Your task to perform on an android device: Check out the best rated 4k TV on Best Buy. Image 0: 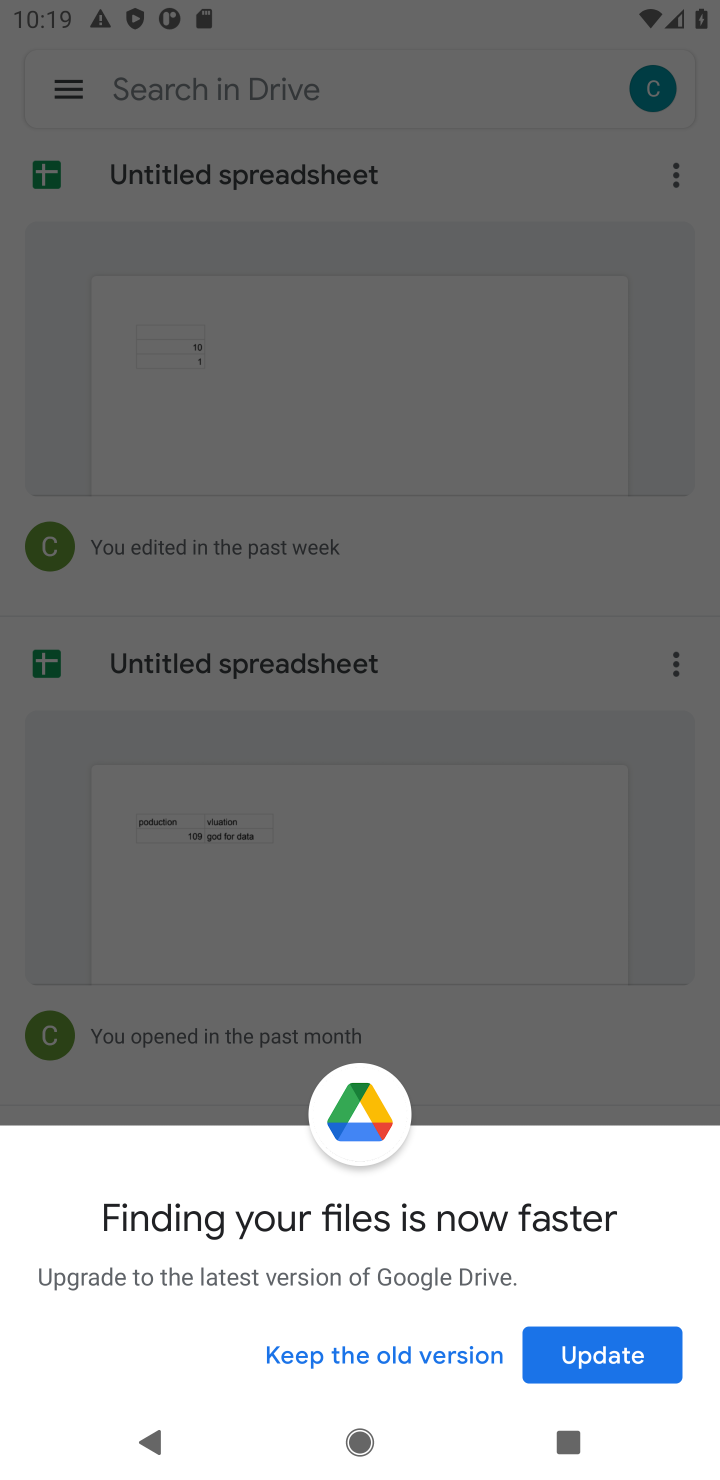
Step 0: press home button
Your task to perform on an android device: Check out the best rated 4k TV on Best Buy. Image 1: 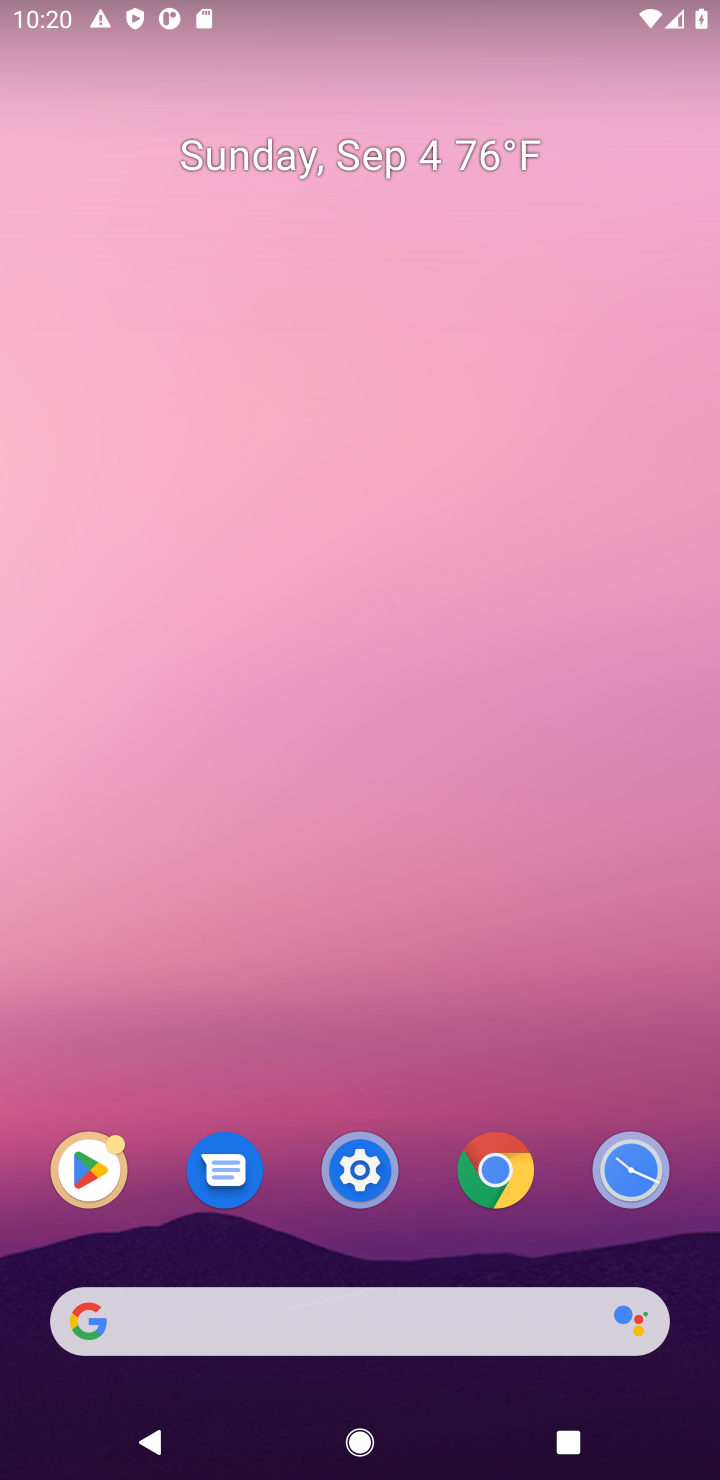
Step 1: click (379, 1306)
Your task to perform on an android device: Check out the best rated 4k TV on Best Buy. Image 2: 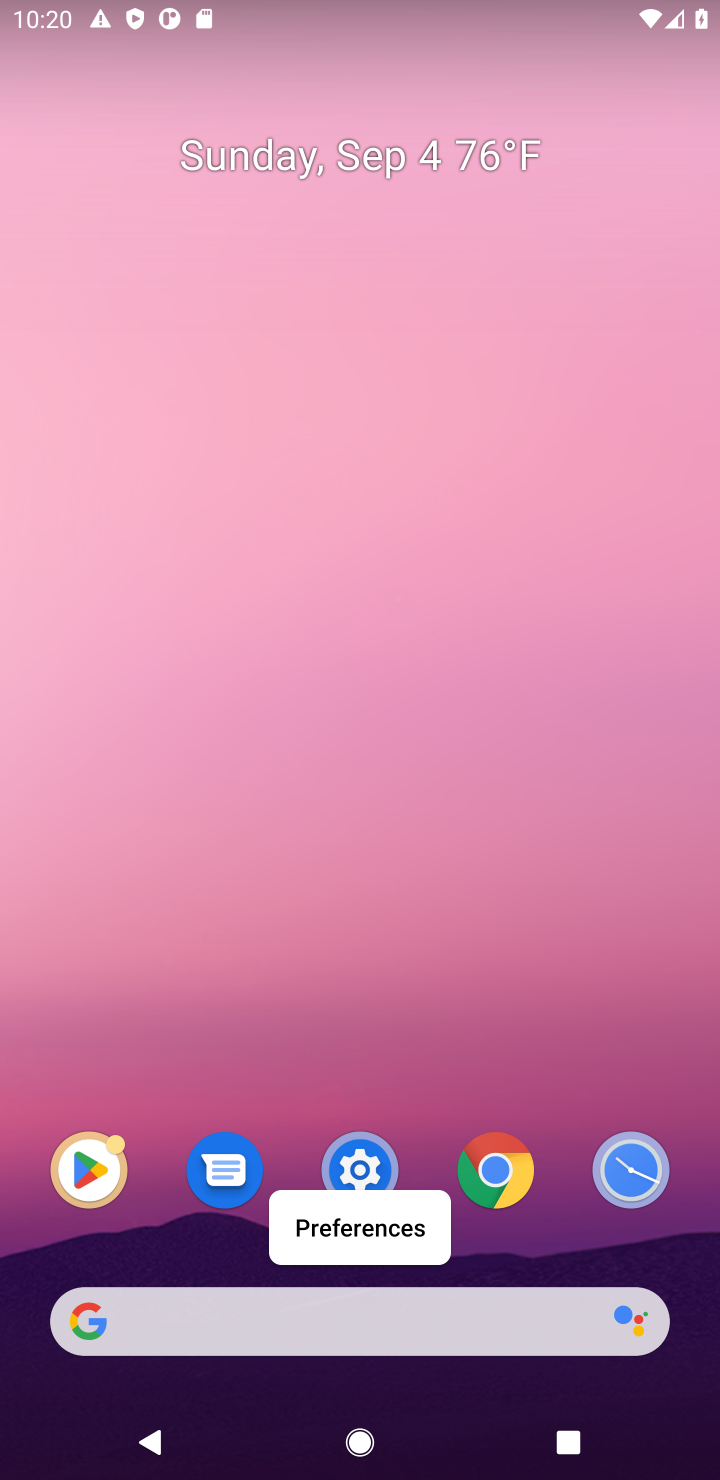
Step 2: click (286, 1310)
Your task to perform on an android device: Check out the best rated 4k TV on Best Buy. Image 3: 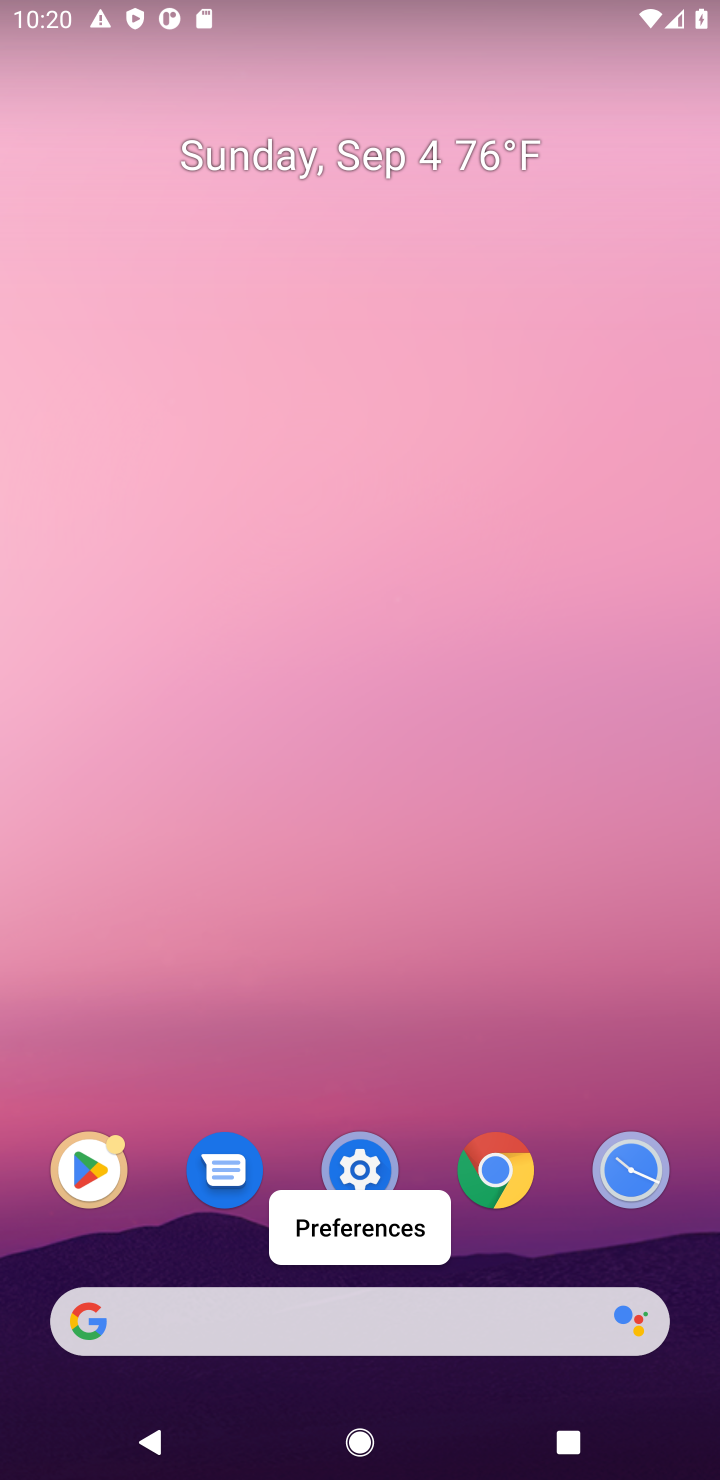
Step 3: click (304, 1322)
Your task to perform on an android device: Check out the best rated 4k TV on Best Buy. Image 4: 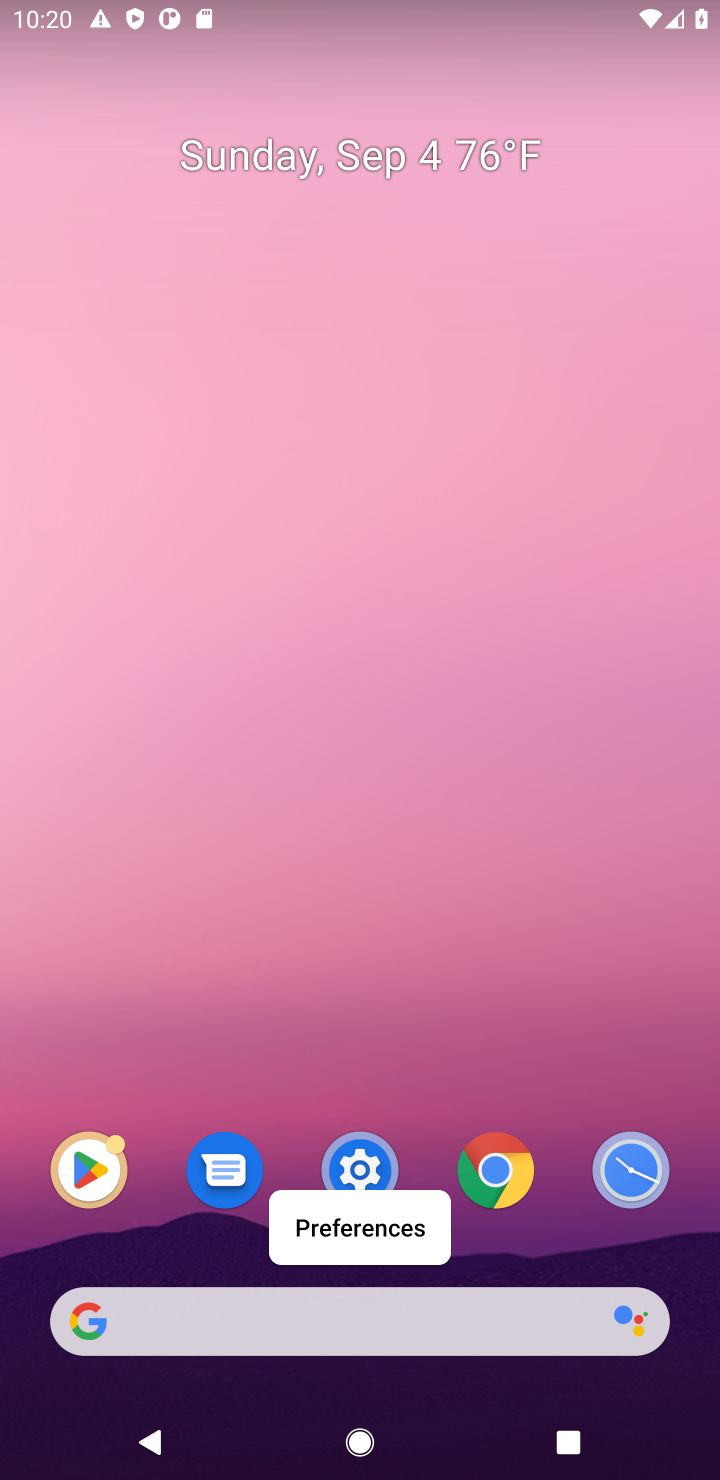
Step 4: click (304, 1322)
Your task to perform on an android device: Check out the best rated 4k TV on Best Buy. Image 5: 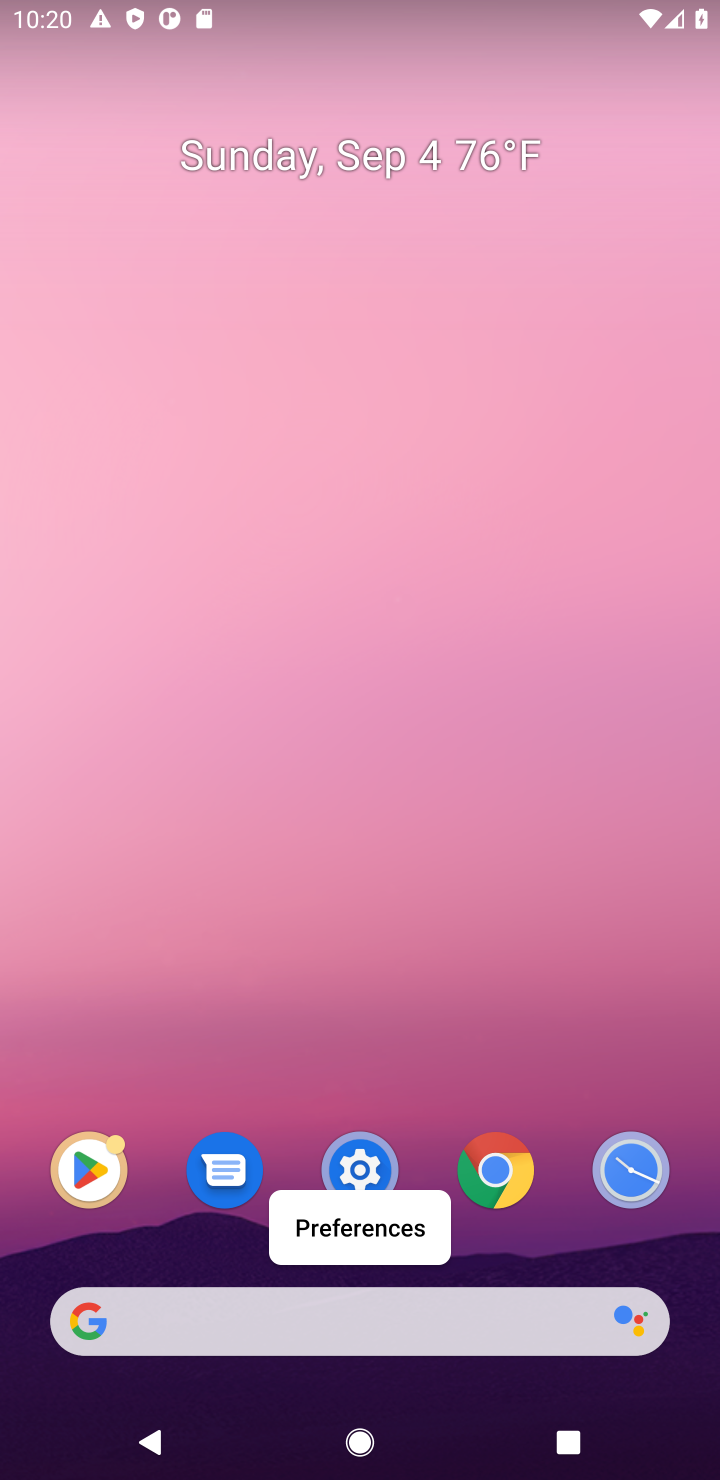
Step 5: click (304, 1322)
Your task to perform on an android device: Check out the best rated 4k TV on Best Buy. Image 6: 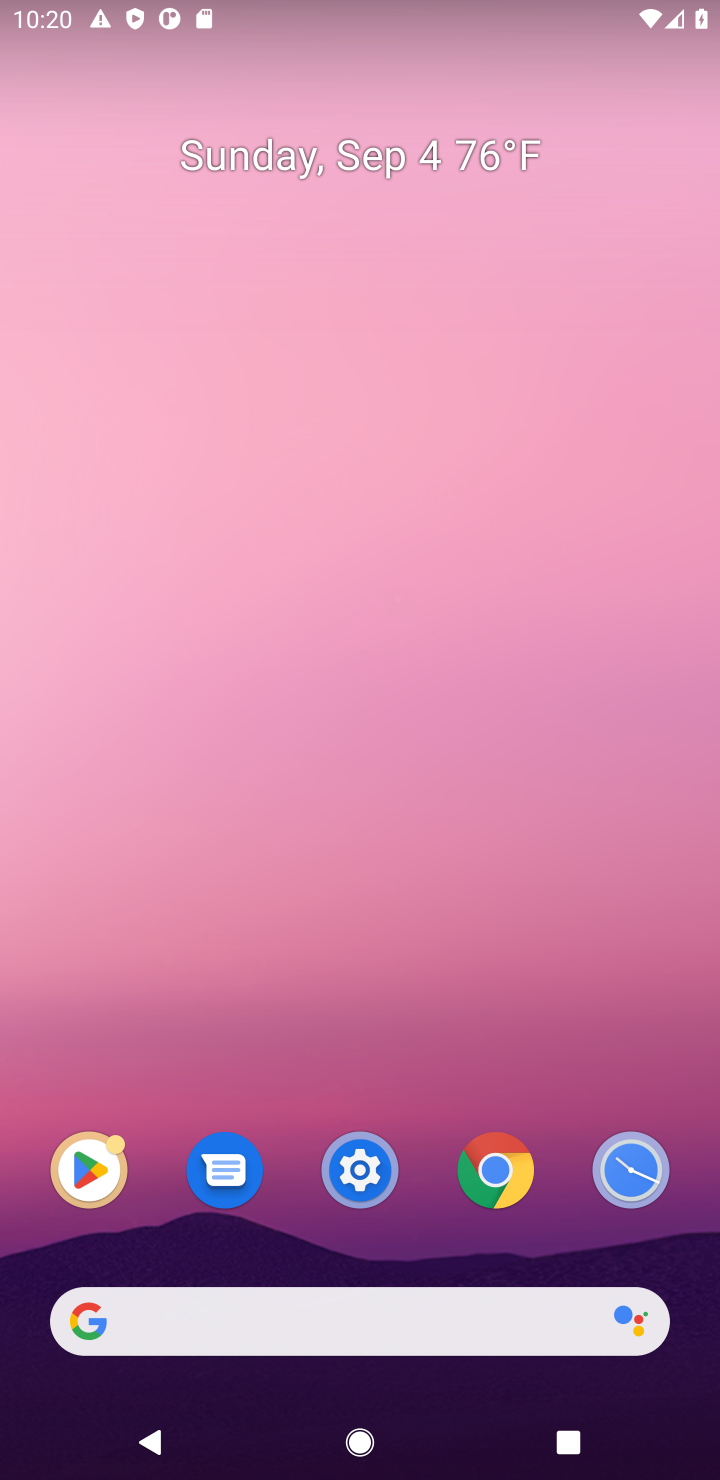
Step 6: click (290, 1320)
Your task to perform on an android device: Check out the best rated 4k TV on Best Buy. Image 7: 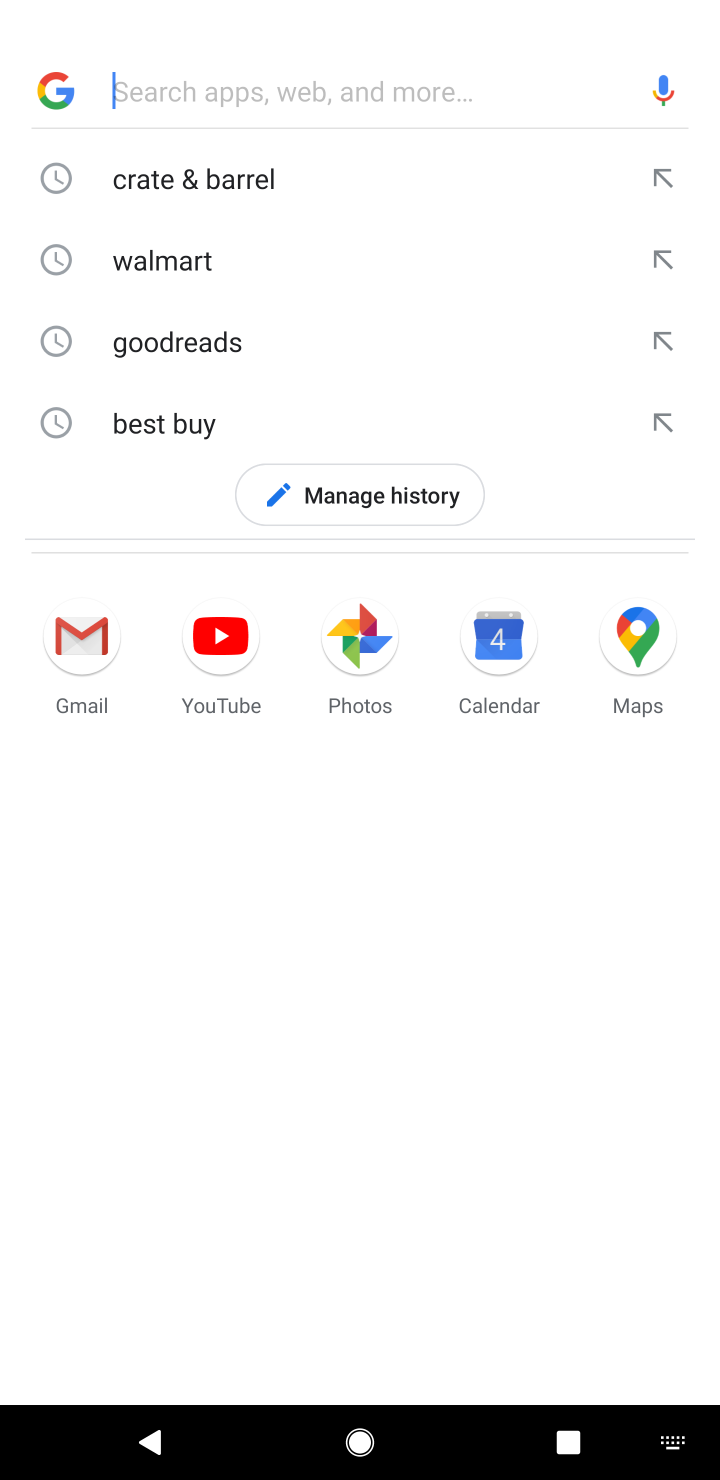
Step 7: type "Best Buy"
Your task to perform on an android device: Check out the best rated 4k TV on Best Buy. Image 8: 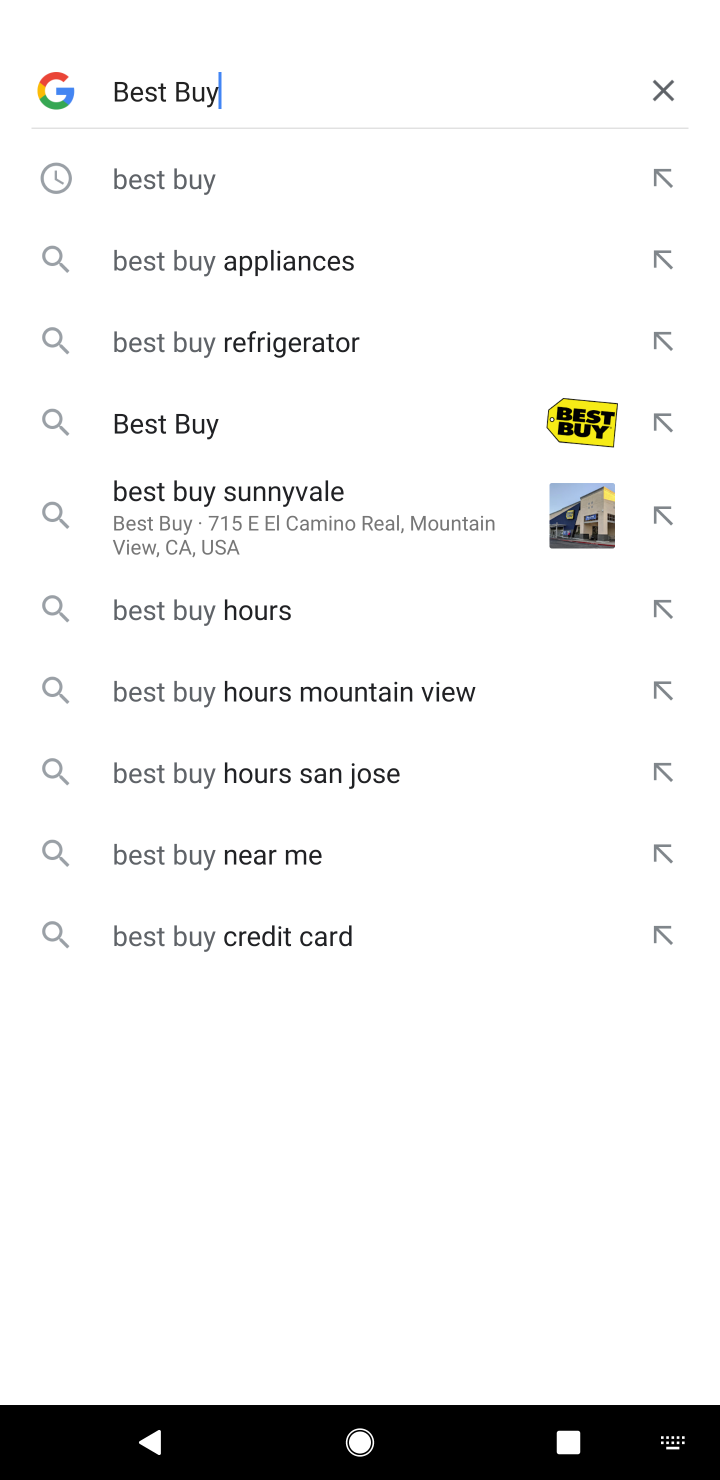
Step 8: click (231, 191)
Your task to perform on an android device: Check out the best rated 4k TV on Best Buy. Image 9: 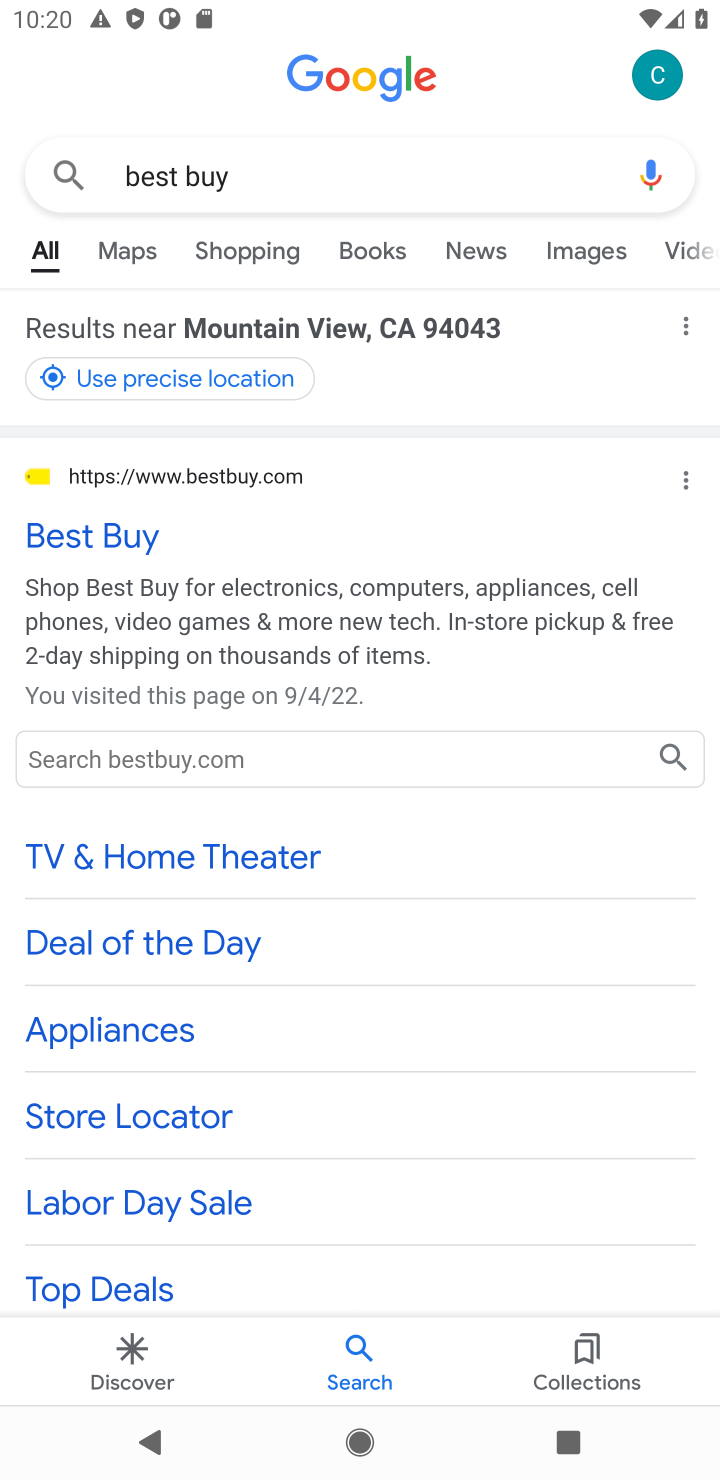
Step 9: click (91, 554)
Your task to perform on an android device: Check out the best rated 4k TV on Best Buy. Image 10: 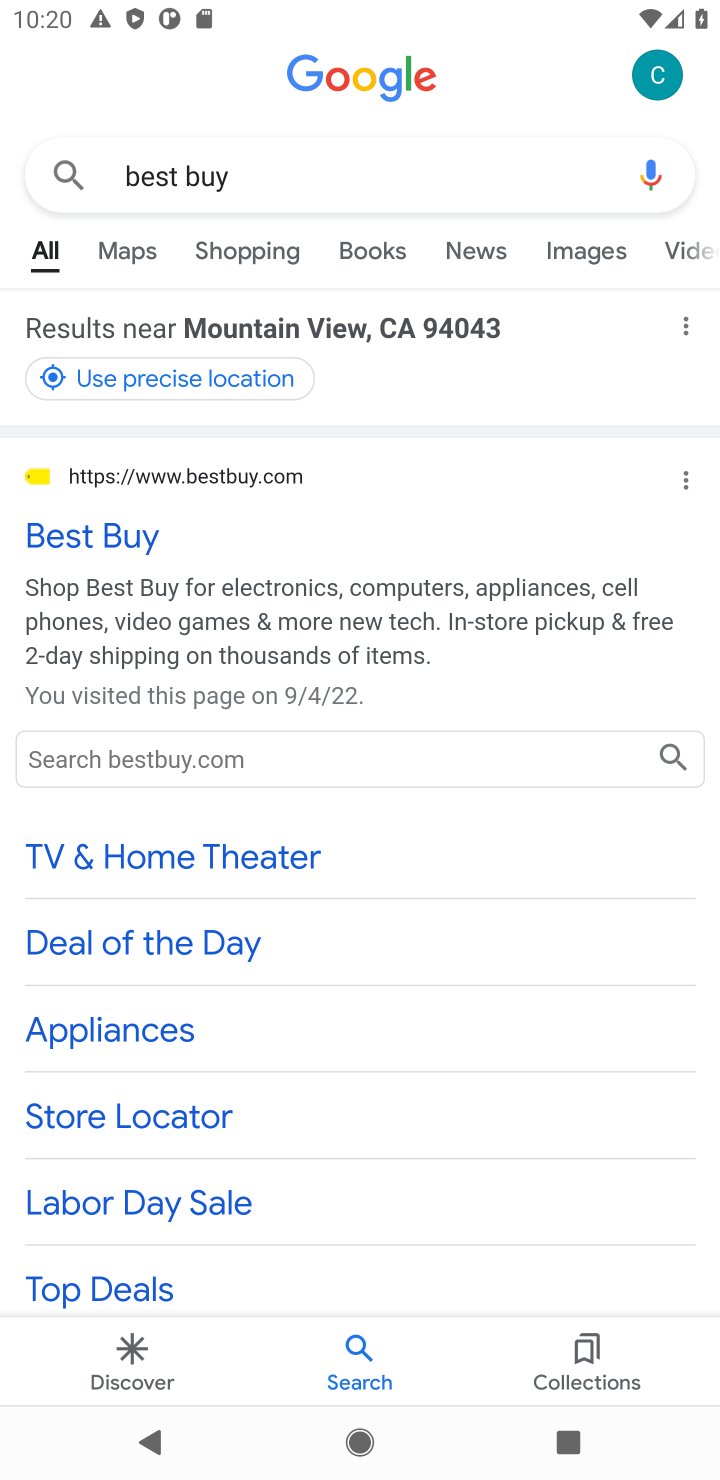
Step 10: click (118, 538)
Your task to perform on an android device: Check out the best rated 4k TV on Best Buy. Image 11: 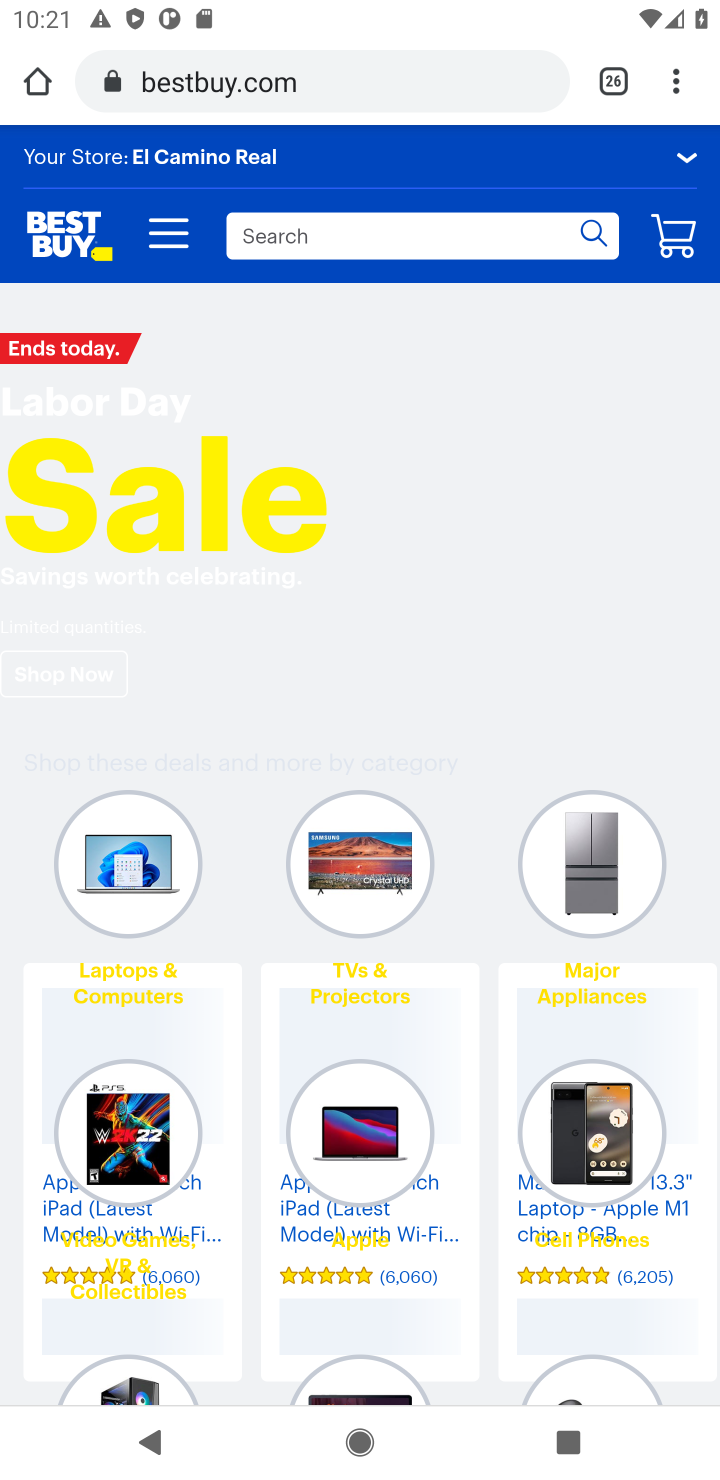
Step 11: click (305, 235)
Your task to perform on an android device: Check out the best rated 4k TV on Best Buy. Image 12: 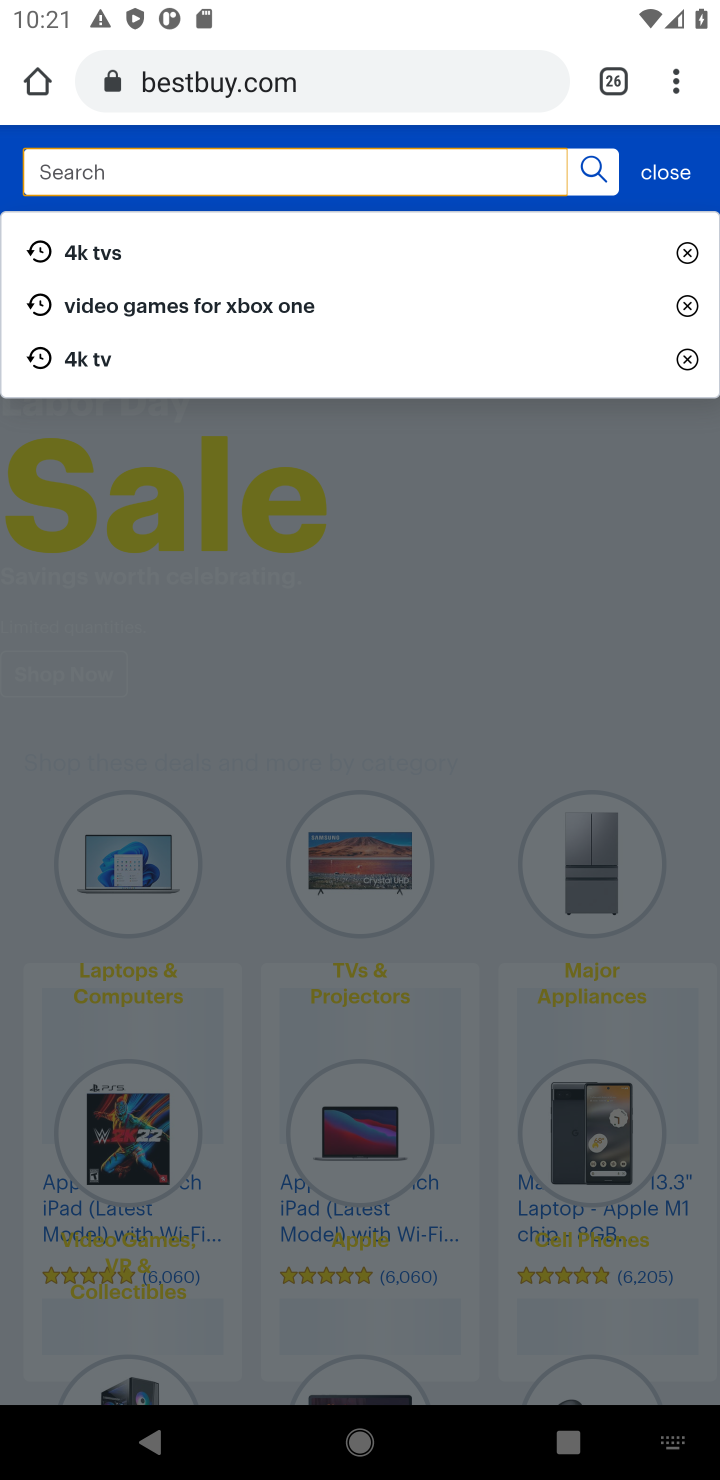
Step 12: click (104, 261)
Your task to perform on an android device: Check out the best rated 4k TV on Best Buy. Image 13: 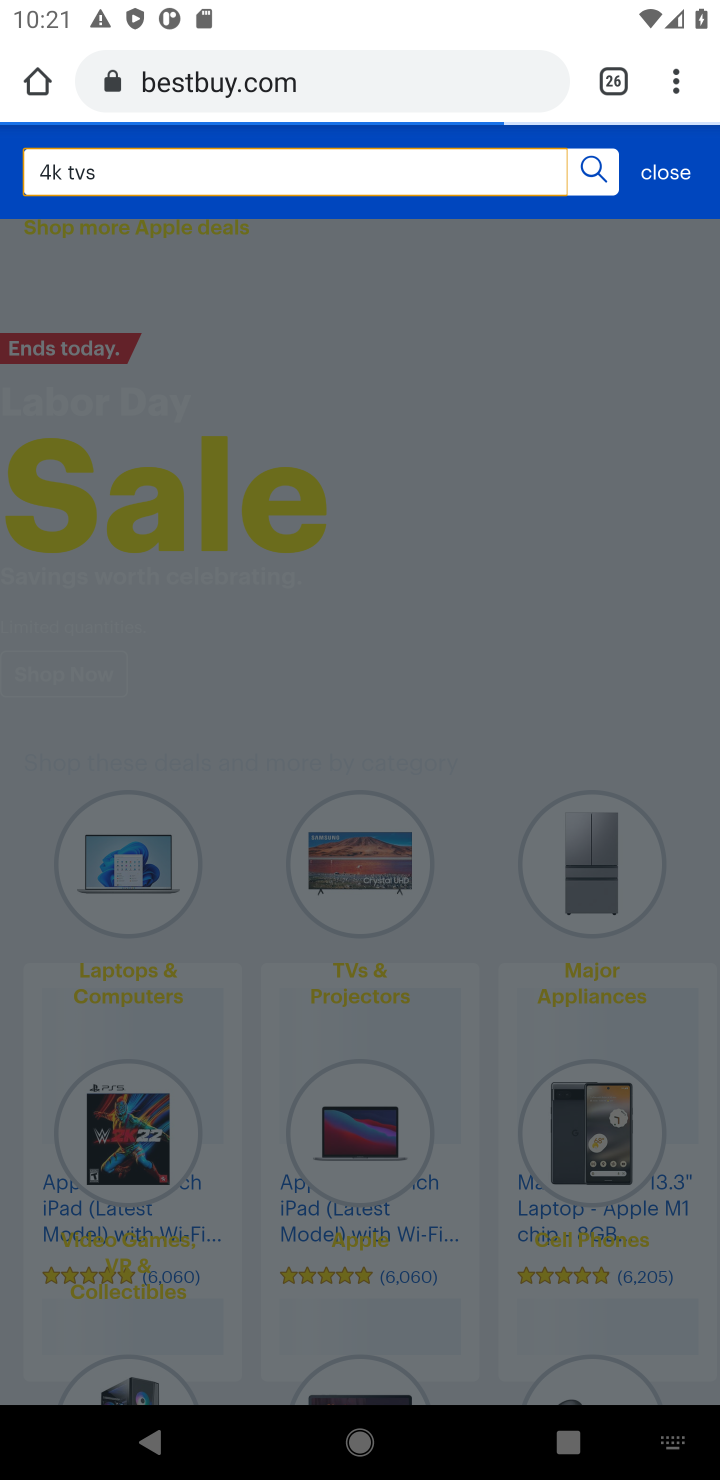
Step 13: click (583, 170)
Your task to perform on an android device: Check out the best rated 4k TV on Best Buy. Image 14: 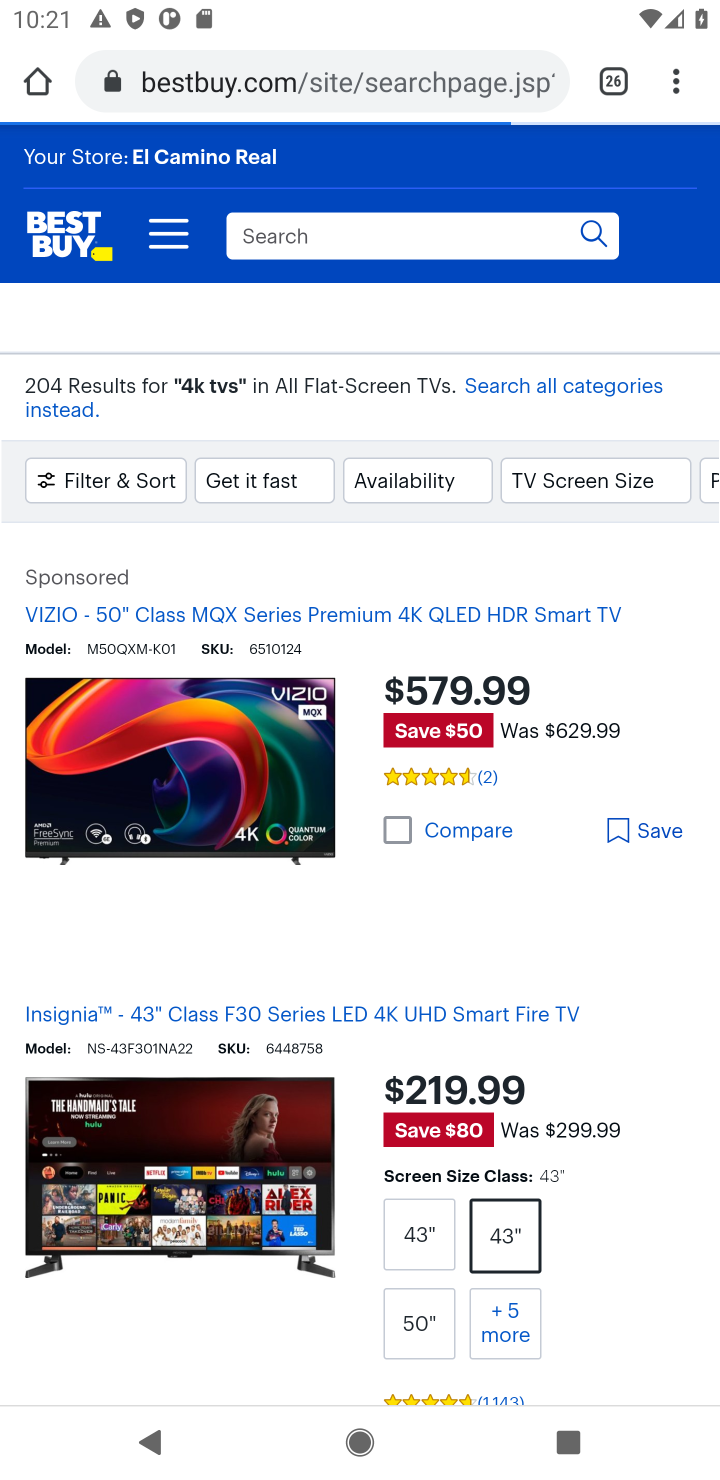
Step 14: task complete